Your task to perform on an android device: What's the weather? Image 0: 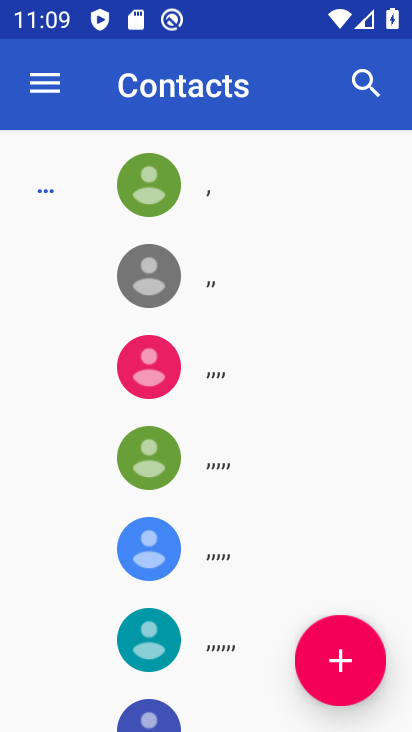
Step 0: press home button
Your task to perform on an android device: What's the weather? Image 1: 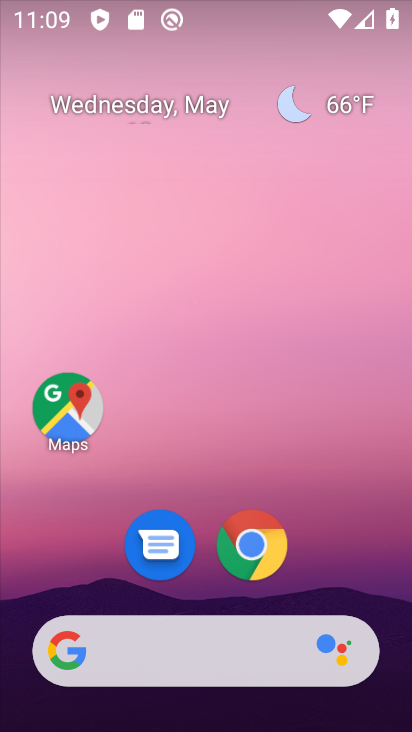
Step 1: click (242, 655)
Your task to perform on an android device: What's the weather? Image 2: 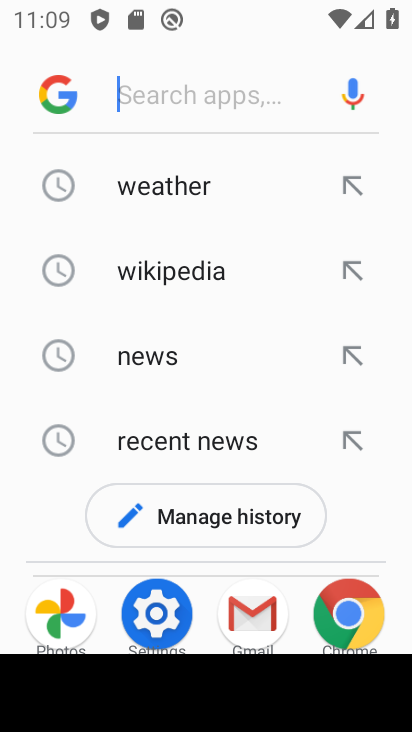
Step 2: type "whats the weather"
Your task to perform on an android device: What's the weather? Image 3: 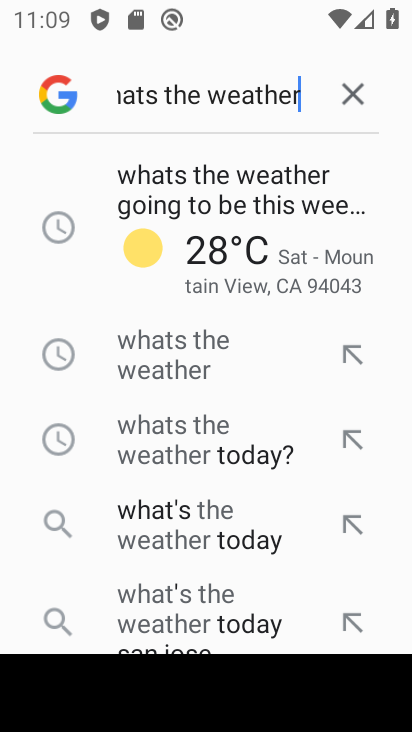
Step 3: click (248, 188)
Your task to perform on an android device: What's the weather? Image 4: 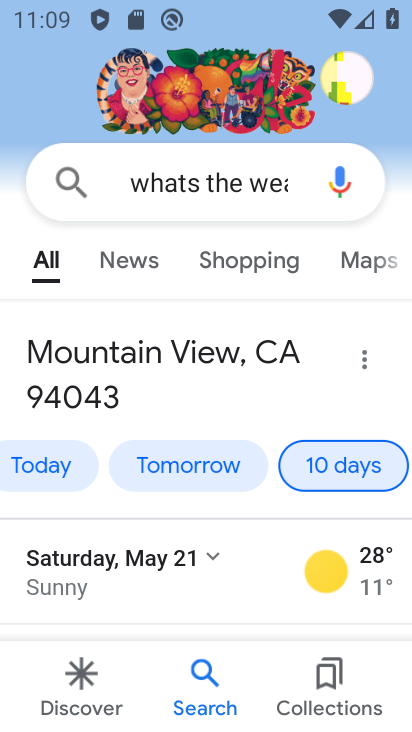
Step 4: click (41, 472)
Your task to perform on an android device: What's the weather? Image 5: 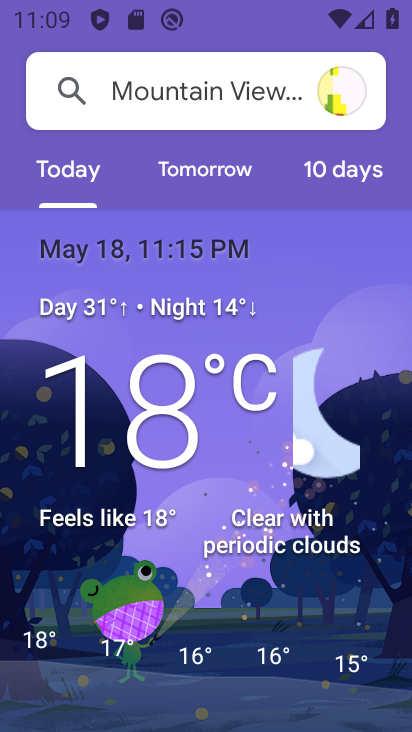
Step 5: task complete